Your task to perform on an android device: Go to network settings Image 0: 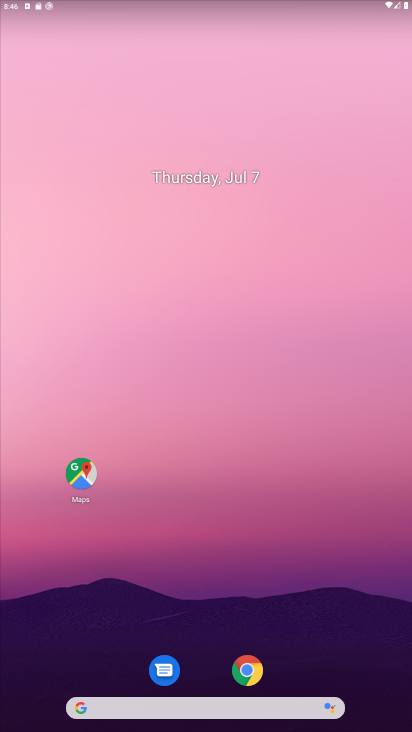
Step 0: drag from (19, 614) to (269, 71)
Your task to perform on an android device: Go to network settings Image 1: 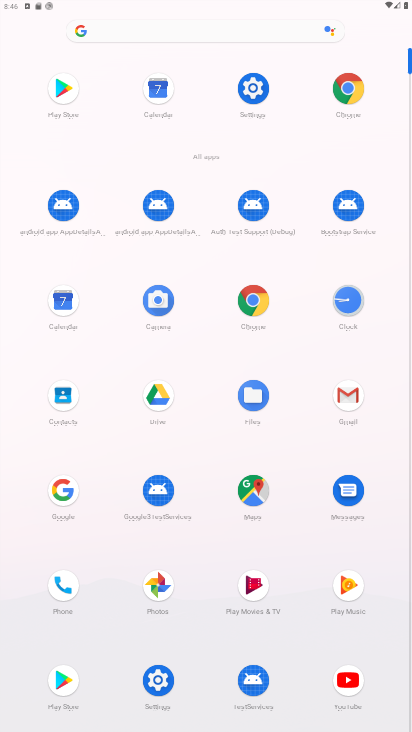
Step 1: click (241, 103)
Your task to perform on an android device: Go to network settings Image 2: 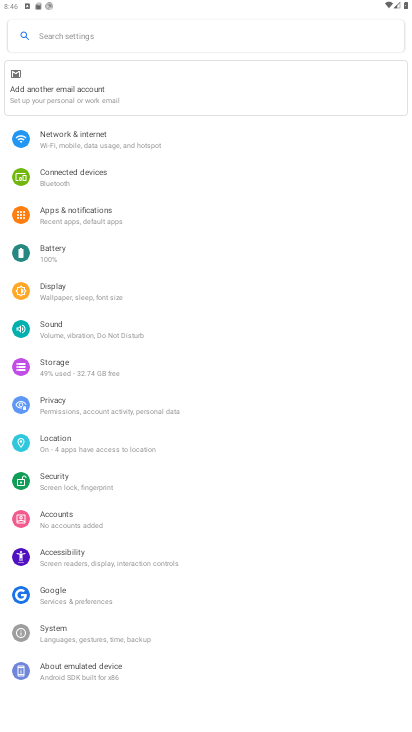
Step 2: click (176, 137)
Your task to perform on an android device: Go to network settings Image 3: 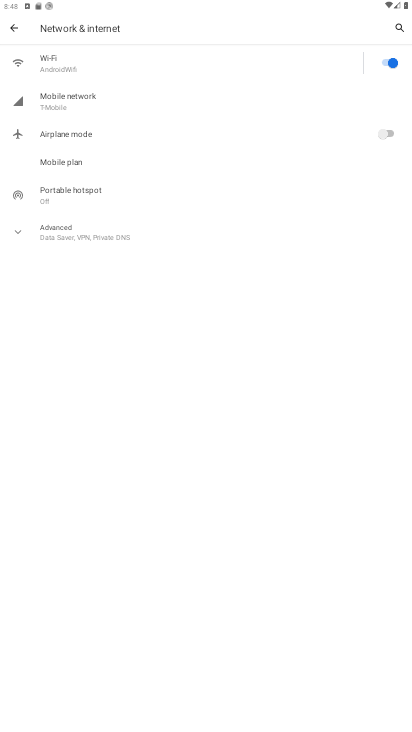
Step 3: click (92, 94)
Your task to perform on an android device: Go to network settings Image 4: 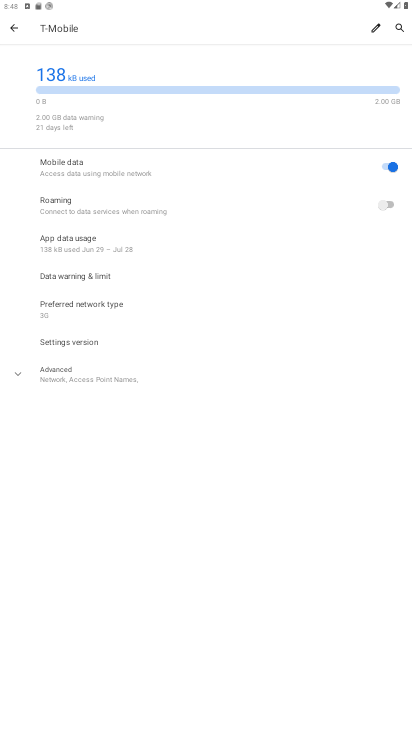
Step 4: task complete